Your task to perform on an android device: Go to Reddit.com Image 0: 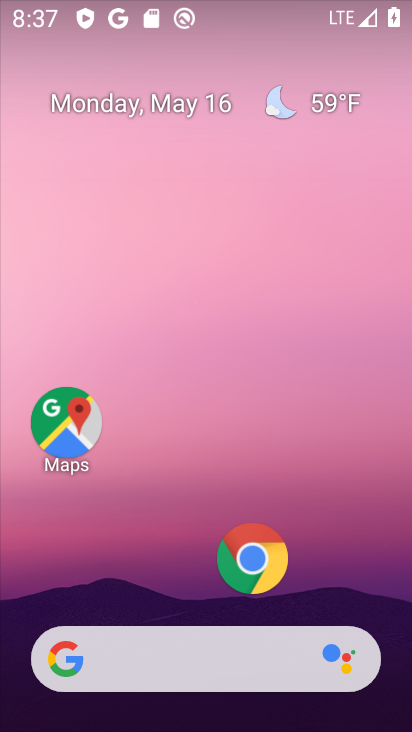
Step 0: click (265, 564)
Your task to perform on an android device: Go to Reddit.com Image 1: 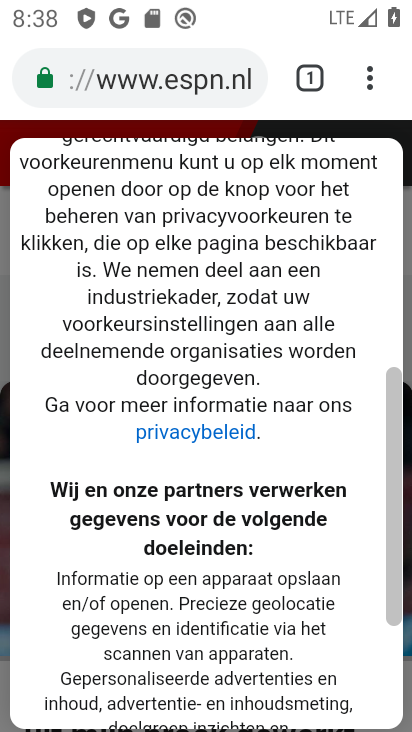
Step 1: click (295, 75)
Your task to perform on an android device: Go to Reddit.com Image 2: 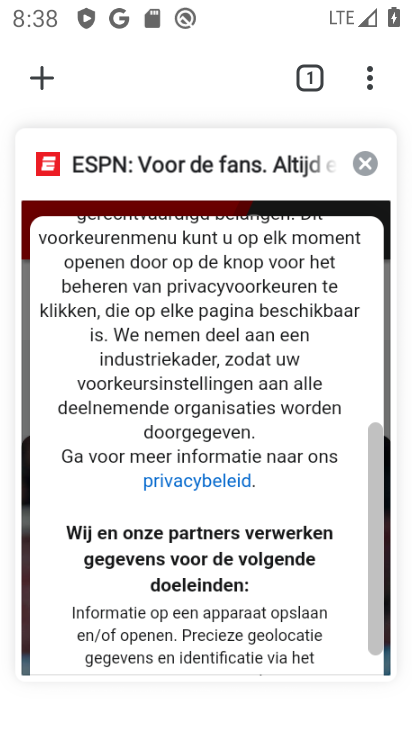
Step 2: click (41, 66)
Your task to perform on an android device: Go to Reddit.com Image 3: 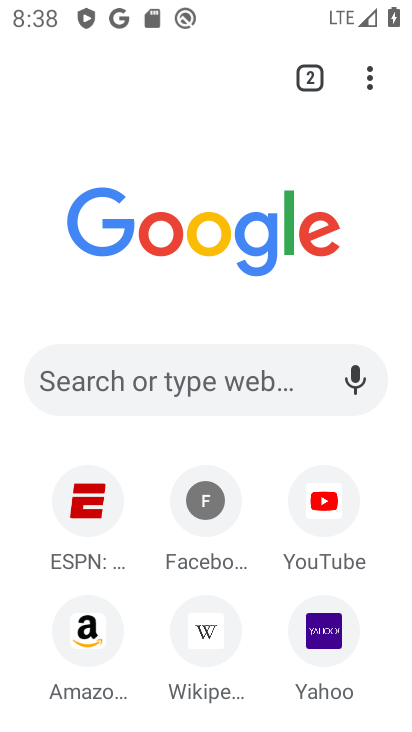
Step 3: drag from (232, 657) to (292, 233)
Your task to perform on an android device: Go to Reddit.com Image 4: 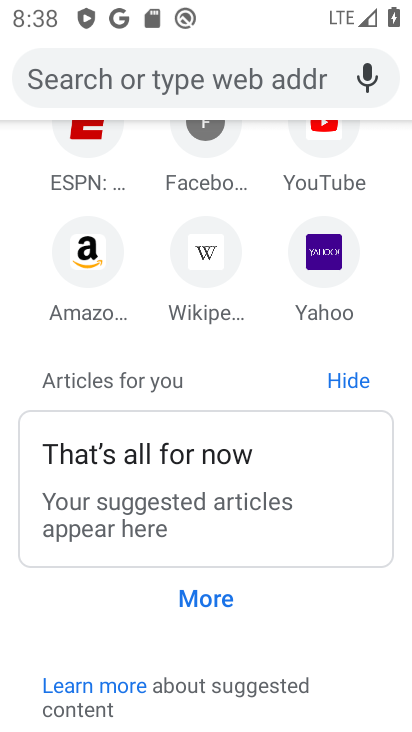
Step 4: drag from (193, 305) to (194, 643)
Your task to perform on an android device: Go to Reddit.com Image 5: 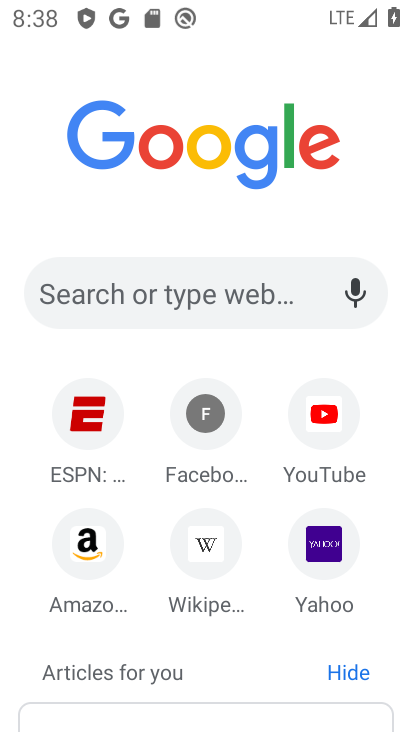
Step 5: click (103, 287)
Your task to perform on an android device: Go to Reddit.com Image 6: 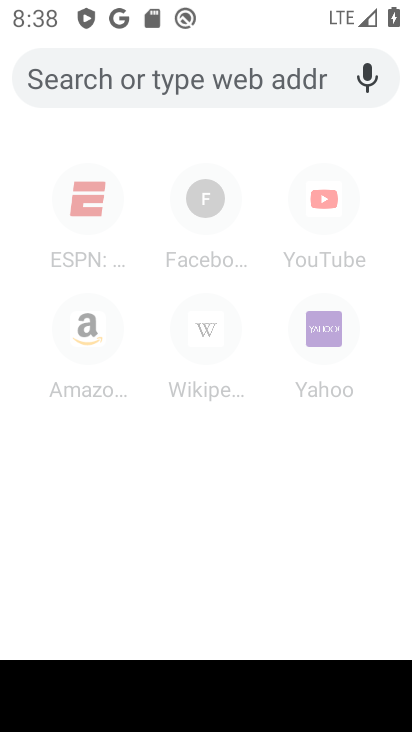
Step 6: type "reddit"
Your task to perform on an android device: Go to Reddit.com Image 7: 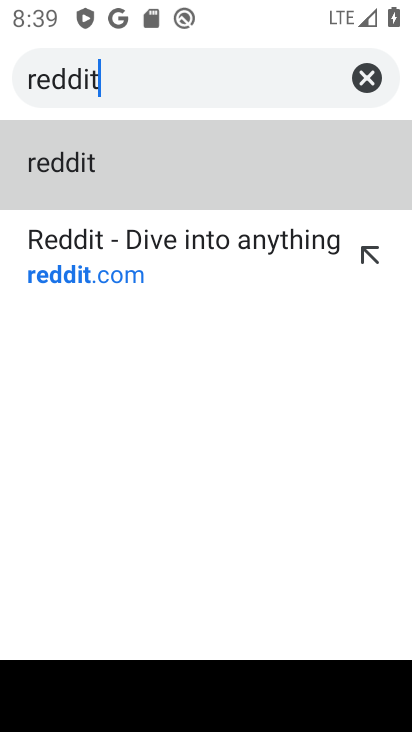
Step 7: click (92, 258)
Your task to perform on an android device: Go to Reddit.com Image 8: 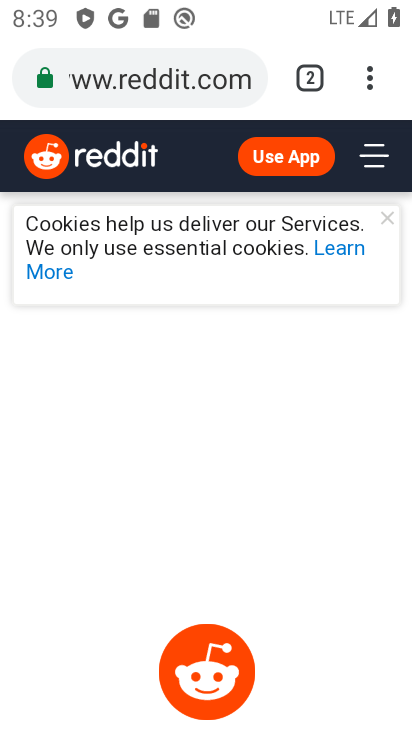
Step 8: task complete